Your task to perform on an android device: Find coffee shops on Maps Image 0: 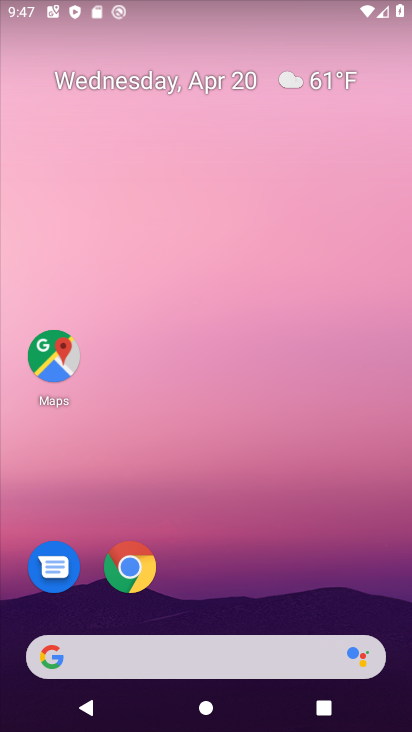
Step 0: click (54, 351)
Your task to perform on an android device: Find coffee shops on Maps Image 1: 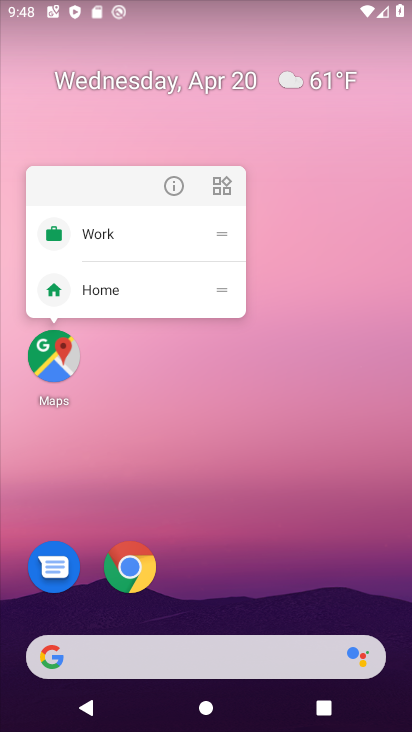
Step 1: click (53, 347)
Your task to perform on an android device: Find coffee shops on Maps Image 2: 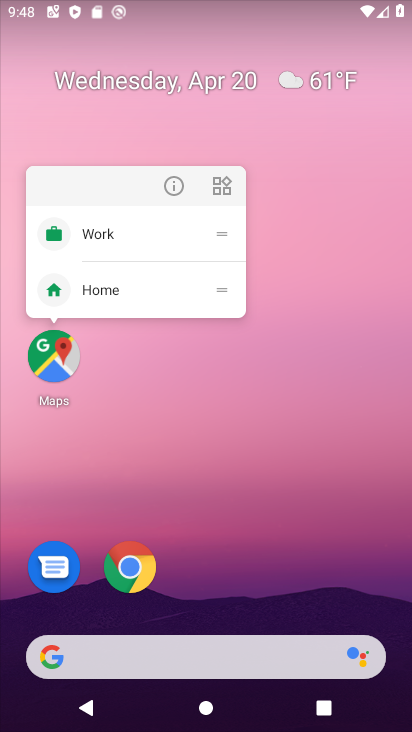
Step 2: click (59, 366)
Your task to perform on an android device: Find coffee shops on Maps Image 3: 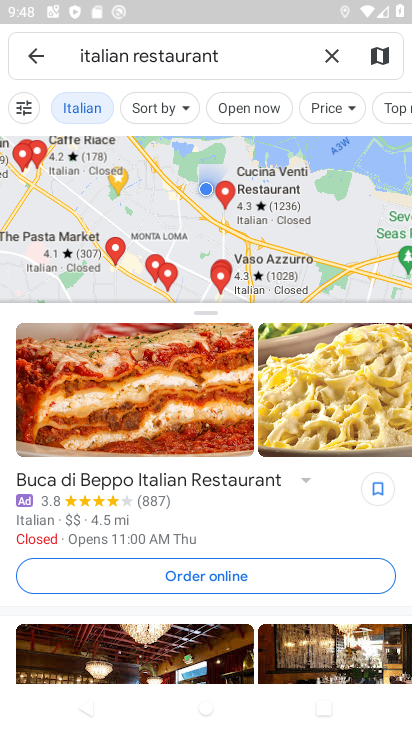
Step 3: click (337, 47)
Your task to perform on an android device: Find coffee shops on Maps Image 4: 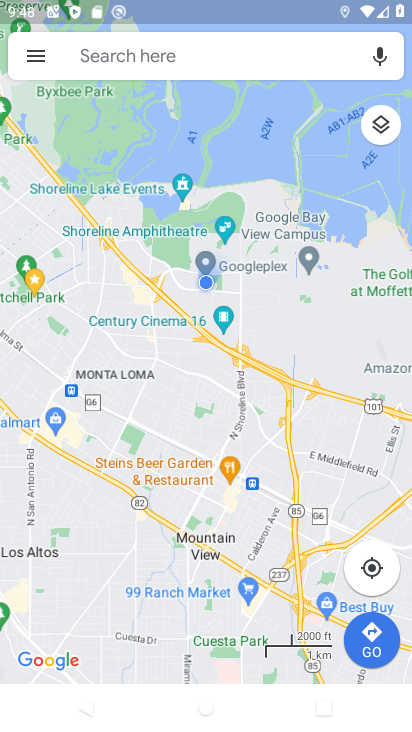
Step 4: click (179, 65)
Your task to perform on an android device: Find coffee shops on Maps Image 5: 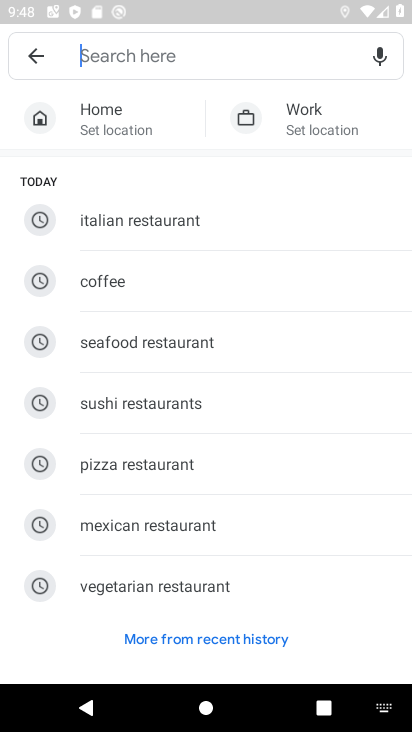
Step 5: click (142, 278)
Your task to perform on an android device: Find coffee shops on Maps Image 6: 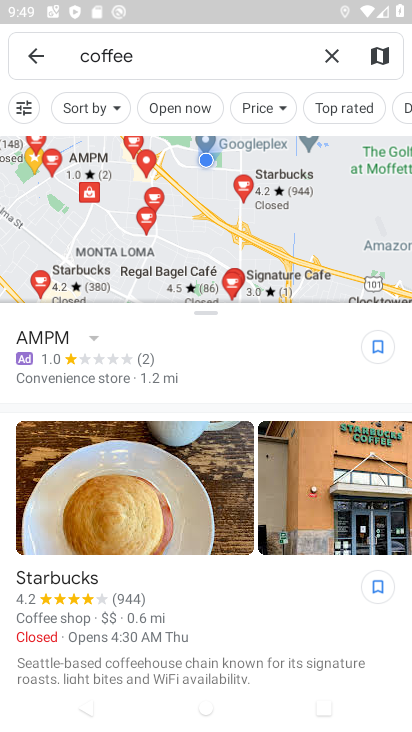
Step 6: task complete